Your task to perform on an android device: snooze an email in the gmail app Image 0: 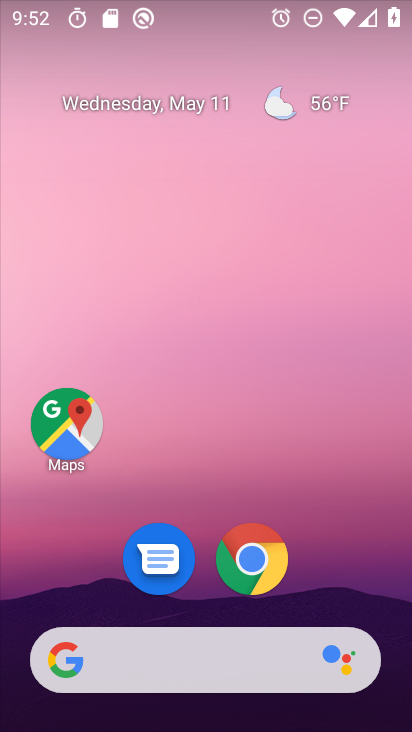
Step 0: drag from (341, 606) to (368, 374)
Your task to perform on an android device: snooze an email in the gmail app Image 1: 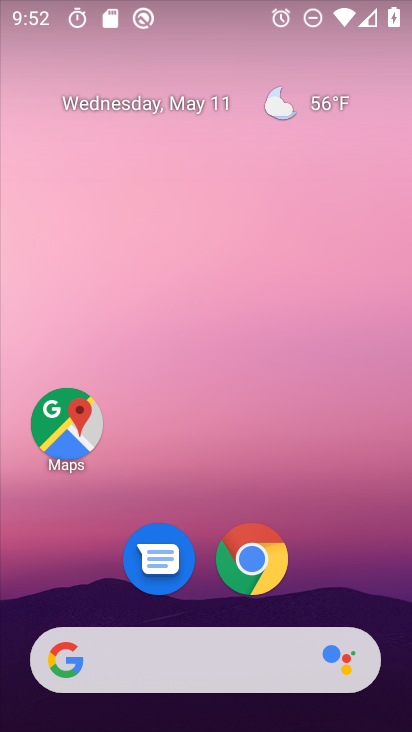
Step 1: drag from (348, 588) to (330, 74)
Your task to perform on an android device: snooze an email in the gmail app Image 2: 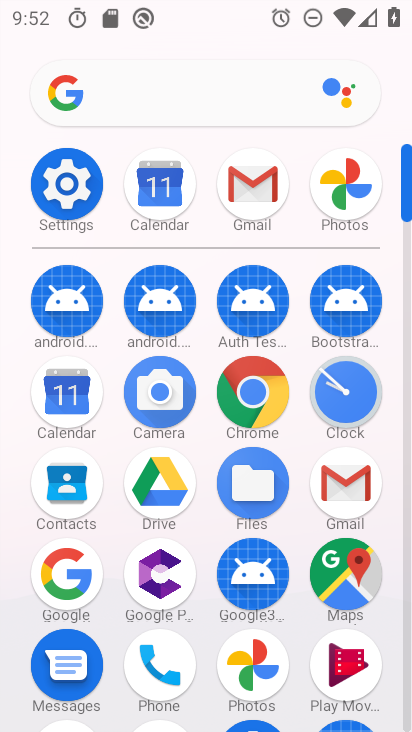
Step 2: click (239, 193)
Your task to perform on an android device: snooze an email in the gmail app Image 3: 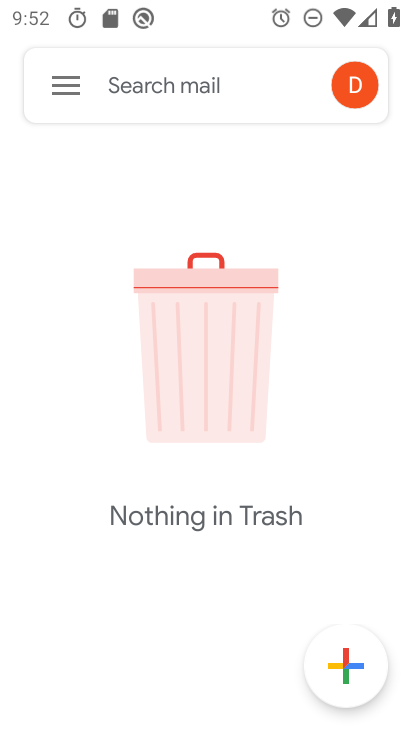
Step 3: task complete